Your task to perform on an android device: Open the map Image 0: 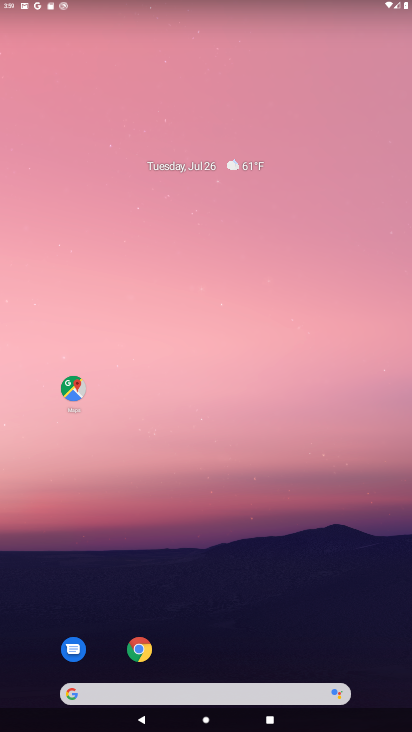
Step 0: task complete